Your task to perform on an android device: Go to notification settings Image 0: 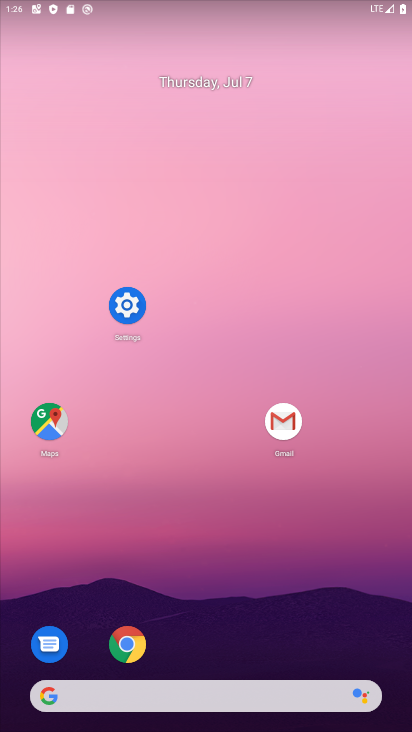
Step 0: click (122, 298)
Your task to perform on an android device: Go to notification settings Image 1: 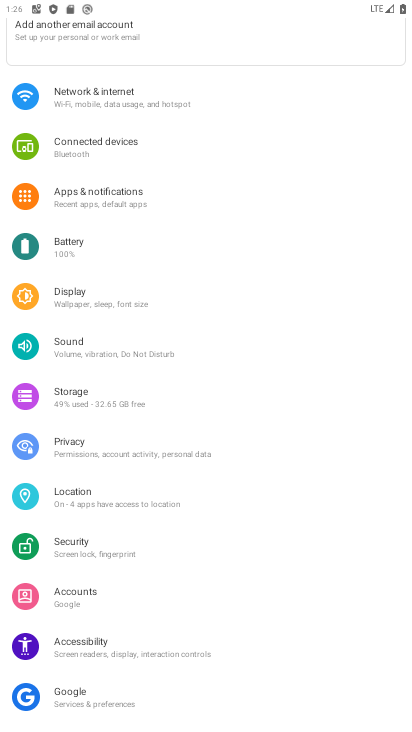
Step 1: click (103, 198)
Your task to perform on an android device: Go to notification settings Image 2: 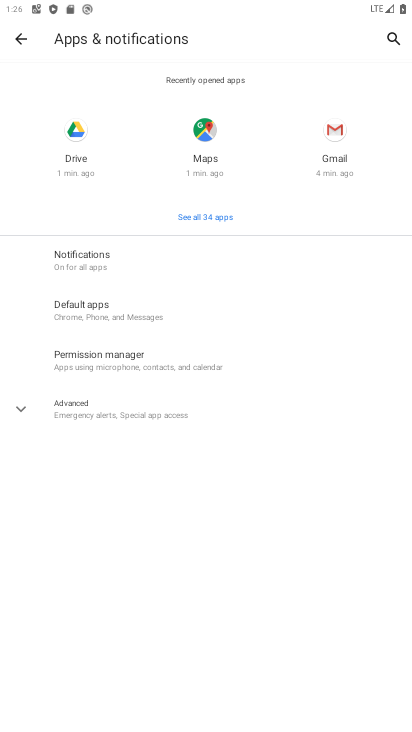
Step 2: click (91, 265)
Your task to perform on an android device: Go to notification settings Image 3: 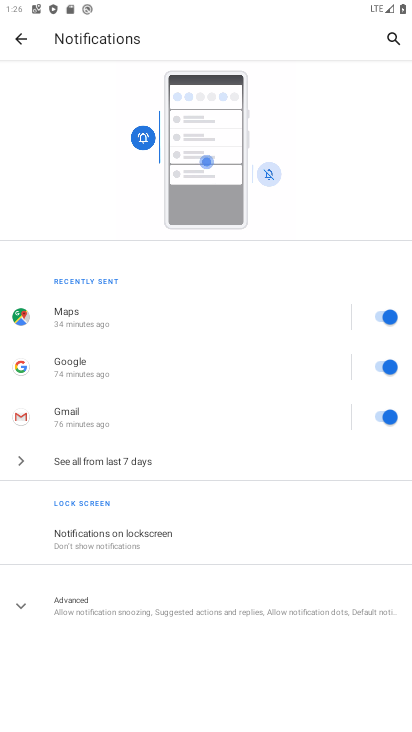
Step 3: click (12, 604)
Your task to perform on an android device: Go to notification settings Image 4: 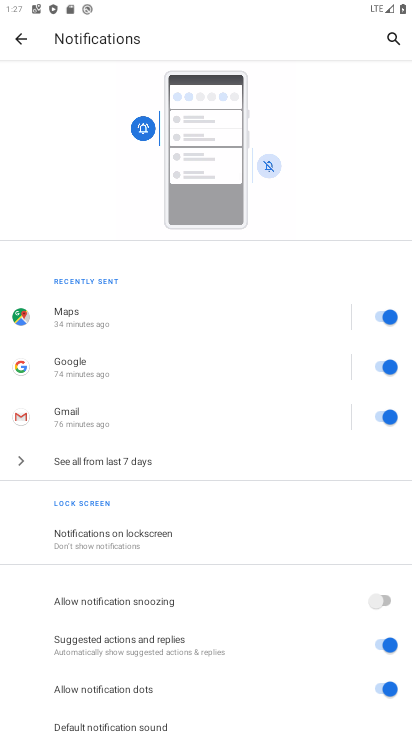
Step 4: task complete